Your task to perform on an android device: Go to CNN.com Image 0: 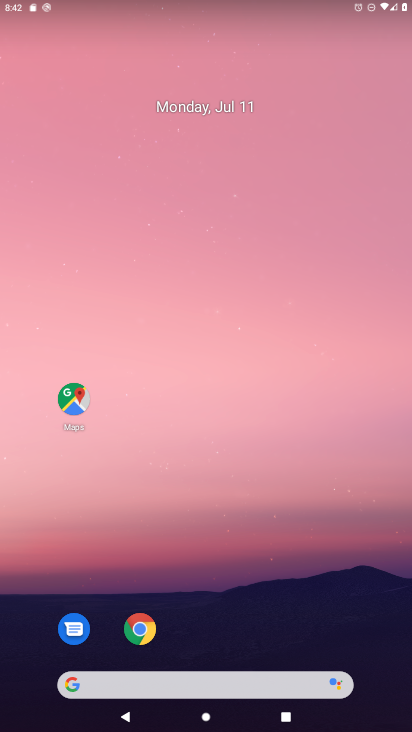
Step 0: drag from (210, 615) to (245, 178)
Your task to perform on an android device: Go to CNN.com Image 1: 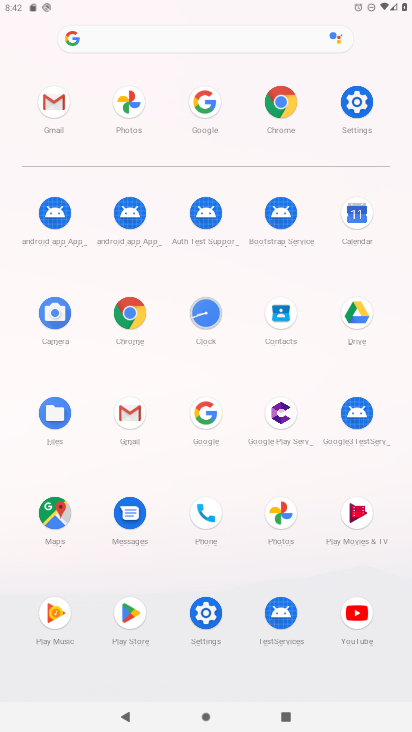
Step 1: click (205, 411)
Your task to perform on an android device: Go to CNN.com Image 2: 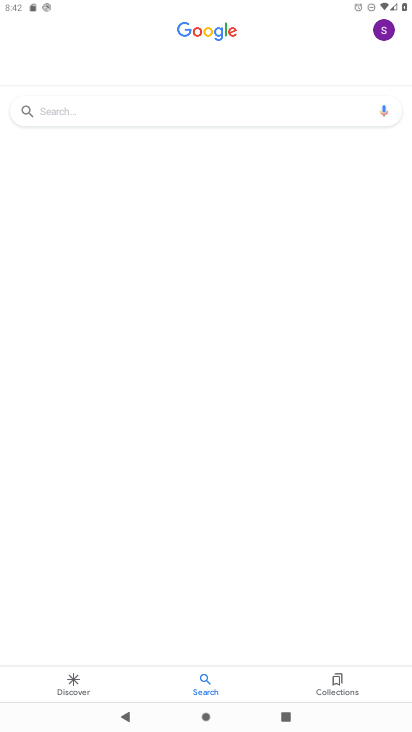
Step 2: click (201, 109)
Your task to perform on an android device: Go to CNN.com Image 3: 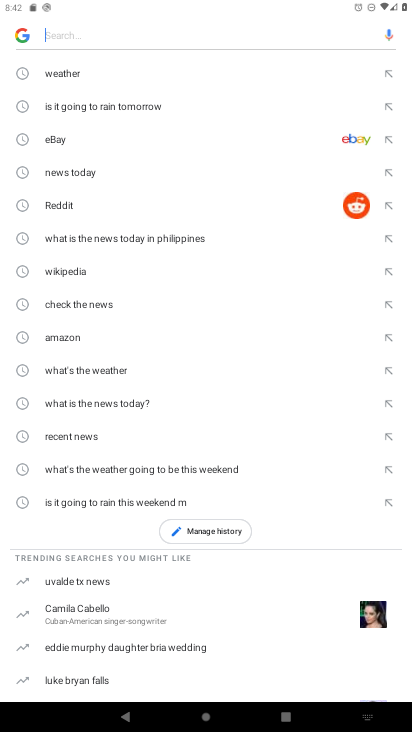
Step 3: type "Cnn.com"
Your task to perform on an android device: Go to CNN.com Image 4: 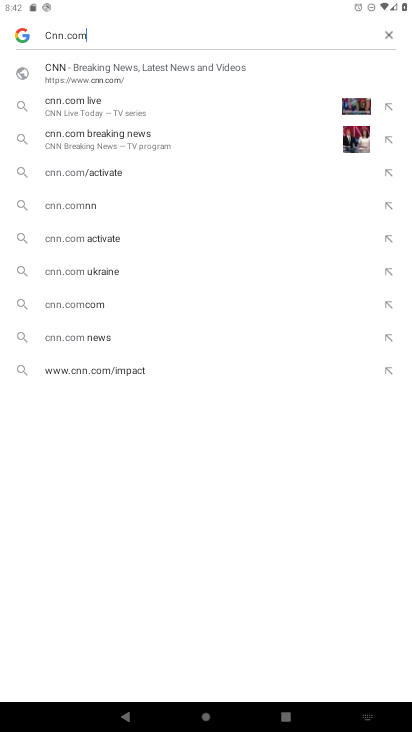
Step 4: click (125, 79)
Your task to perform on an android device: Go to CNN.com Image 5: 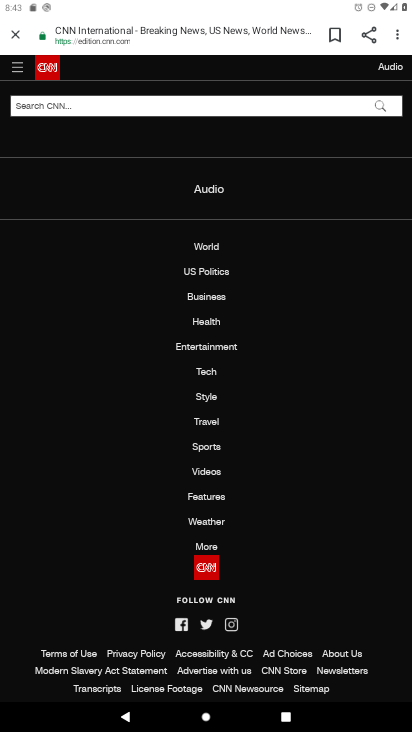
Step 5: task complete